Your task to perform on an android device: show emergency info Image 0: 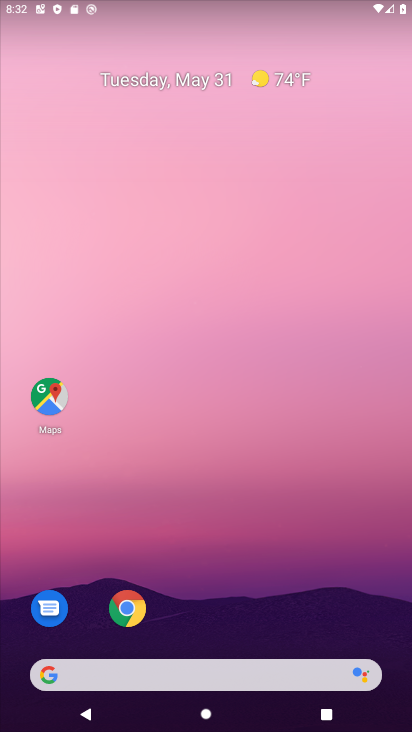
Step 0: drag from (188, 640) to (221, 1)
Your task to perform on an android device: show emergency info Image 1: 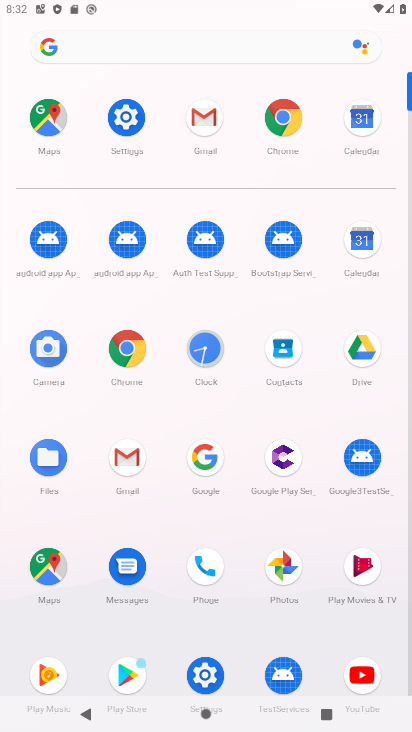
Step 1: click (108, 110)
Your task to perform on an android device: show emergency info Image 2: 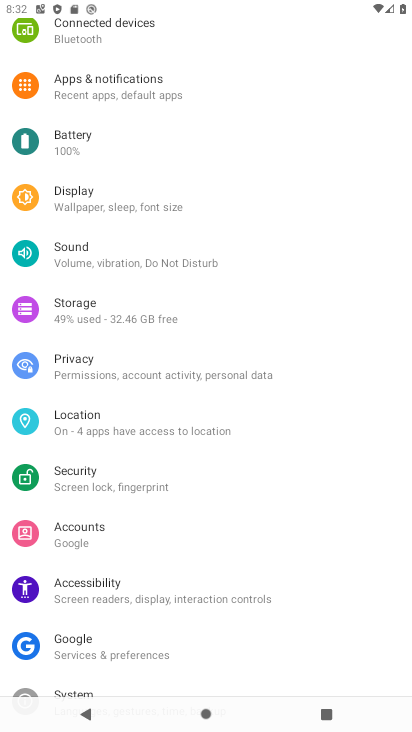
Step 2: drag from (195, 571) to (207, 25)
Your task to perform on an android device: show emergency info Image 3: 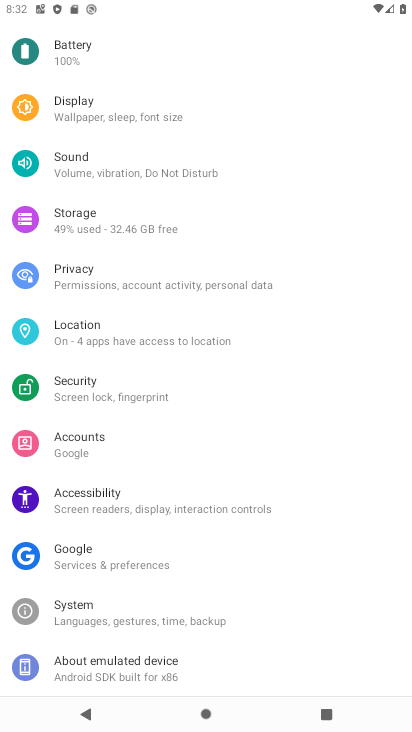
Step 3: click (91, 674)
Your task to perform on an android device: show emergency info Image 4: 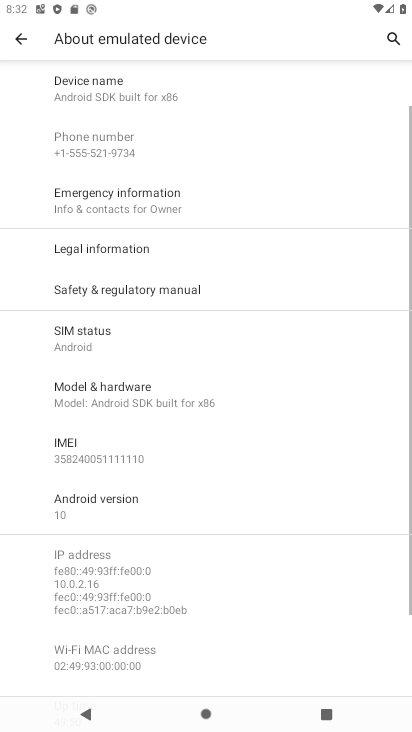
Step 4: click (117, 219)
Your task to perform on an android device: show emergency info Image 5: 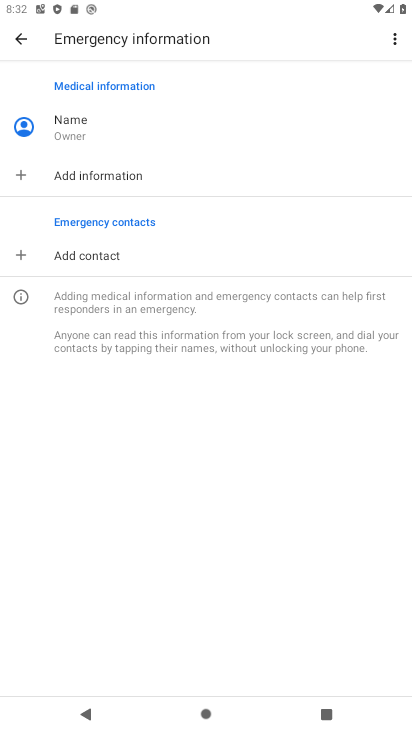
Step 5: task complete